Your task to perform on an android device: turn off notifications settings in the gmail app Image 0: 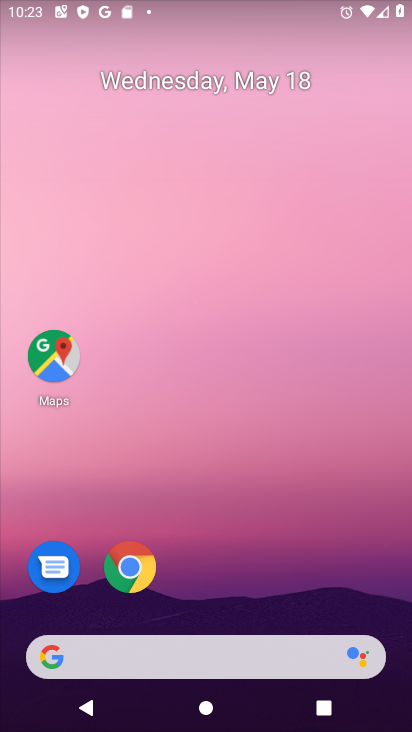
Step 0: drag from (229, 646) to (176, 326)
Your task to perform on an android device: turn off notifications settings in the gmail app Image 1: 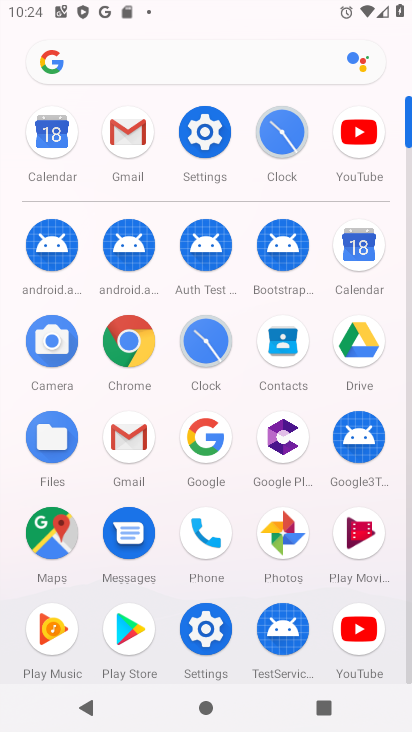
Step 1: click (133, 447)
Your task to perform on an android device: turn off notifications settings in the gmail app Image 2: 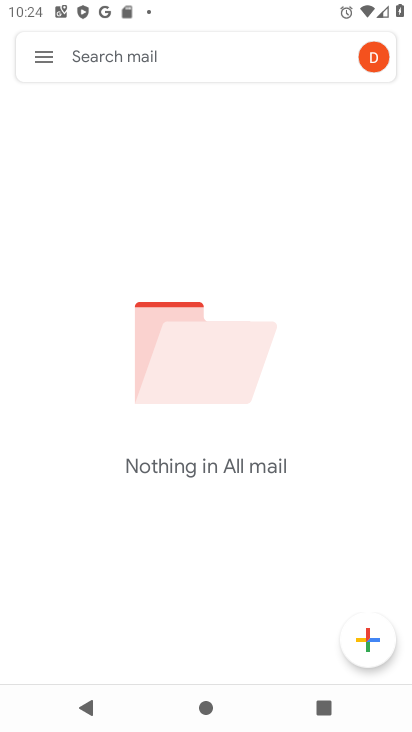
Step 2: click (47, 65)
Your task to perform on an android device: turn off notifications settings in the gmail app Image 3: 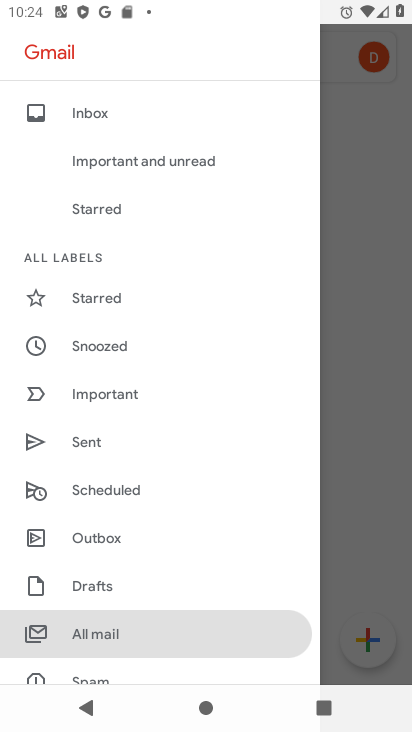
Step 3: drag from (138, 647) to (140, 232)
Your task to perform on an android device: turn off notifications settings in the gmail app Image 4: 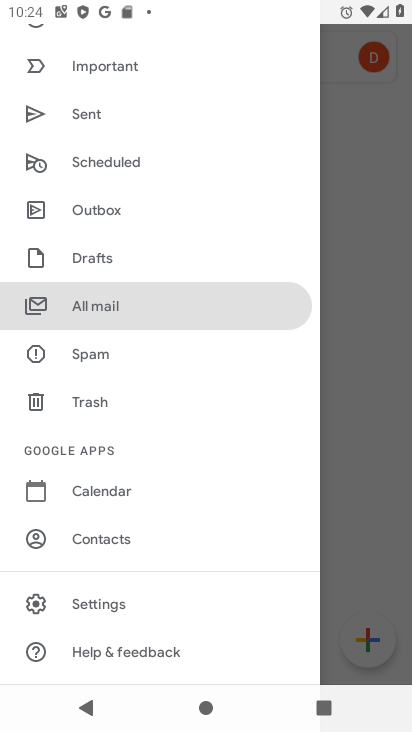
Step 4: click (97, 604)
Your task to perform on an android device: turn off notifications settings in the gmail app Image 5: 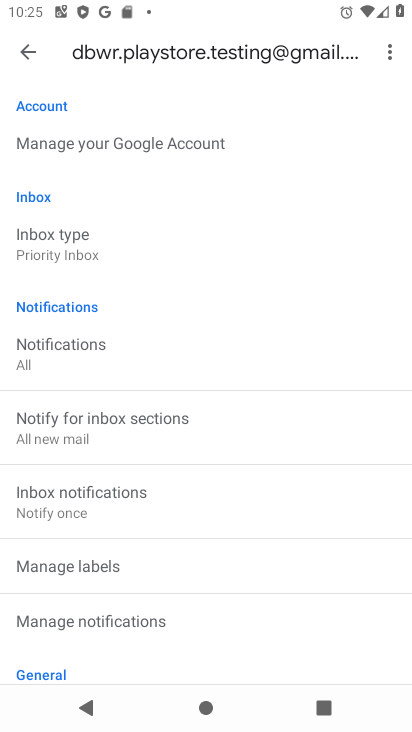
Step 5: click (109, 620)
Your task to perform on an android device: turn off notifications settings in the gmail app Image 6: 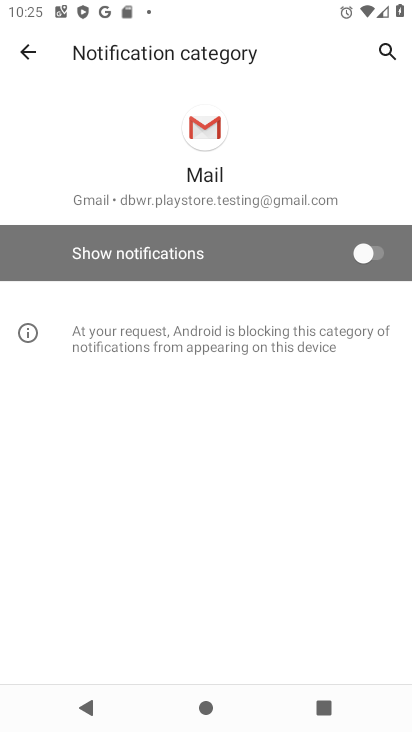
Step 6: press home button
Your task to perform on an android device: turn off notifications settings in the gmail app Image 7: 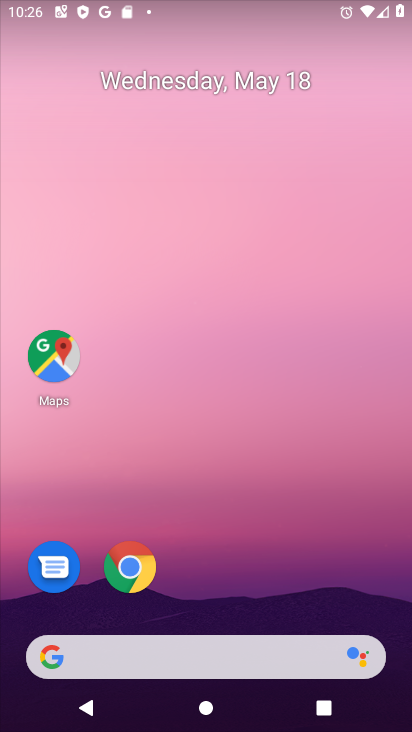
Step 7: drag from (189, 653) to (197, 33)
Your task to perform on an android device: turn off notifications settings in the gmail app Image 8: 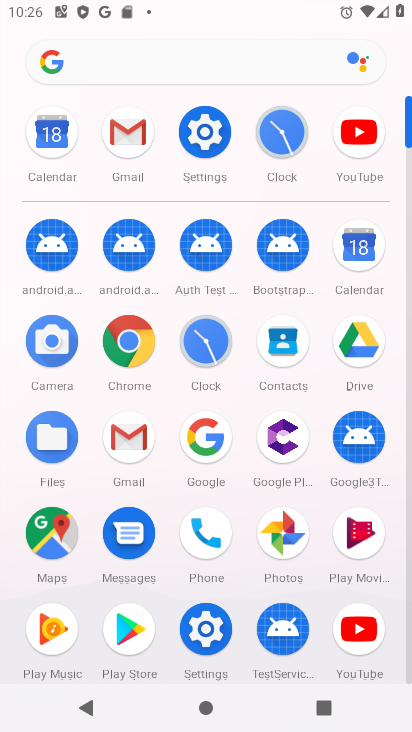
Step 8: click (129, 437)
Your task to perform on an android device: turn off notifications settings in the gmail app Image 9: 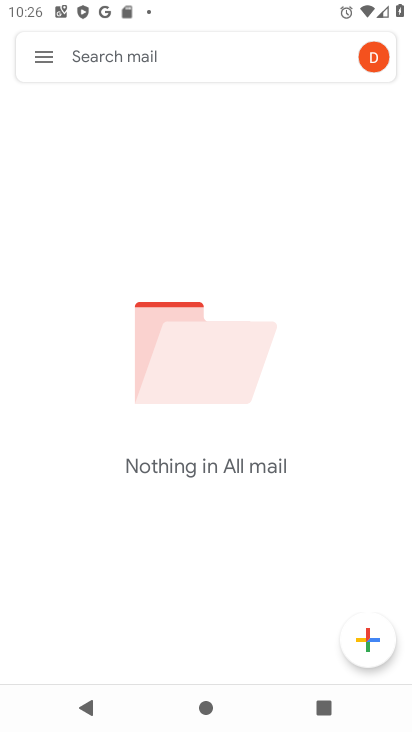
Step 9: click (44, 63)
Your task to perform on an android device: turn off notifications settings in the gmail app Image 10: 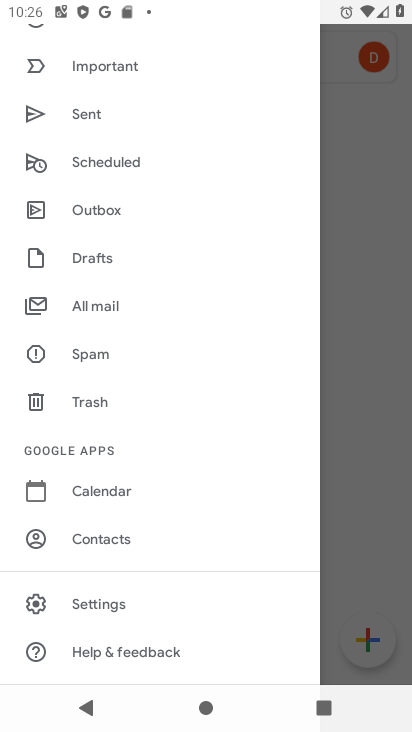
Step 10: click (134, 611)
Your task to perform on an android device: turn off notifications settings in the gmail app Image 11: 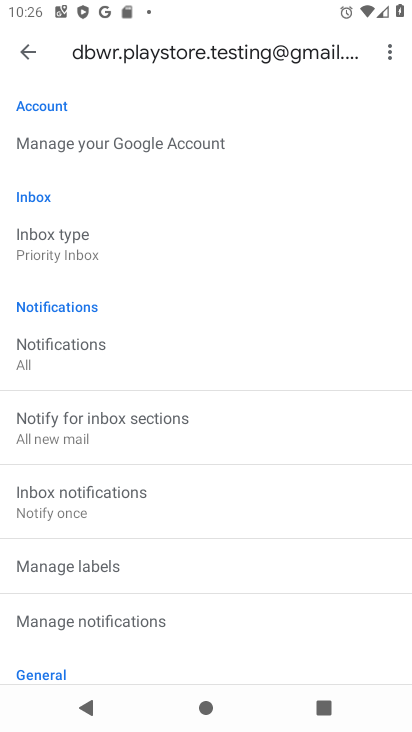
Step 11: click (125, 625)
Your task to perform on an android device: turn off notifications settings in the gmail app Image 12: 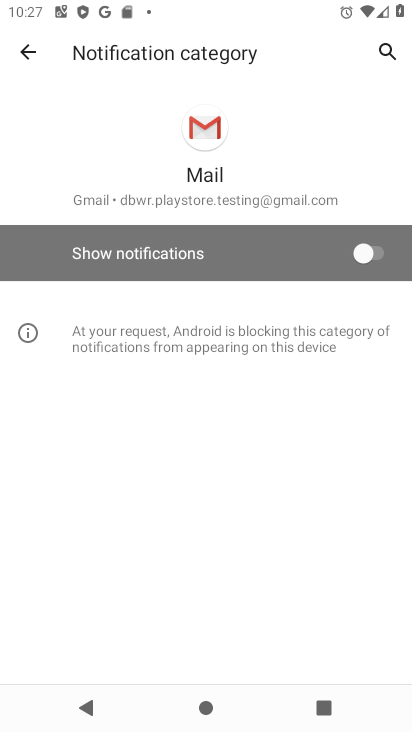
Step 12: task complete